Your task to perform on an android device: turn off notifications settings in the gmail app Image 0: 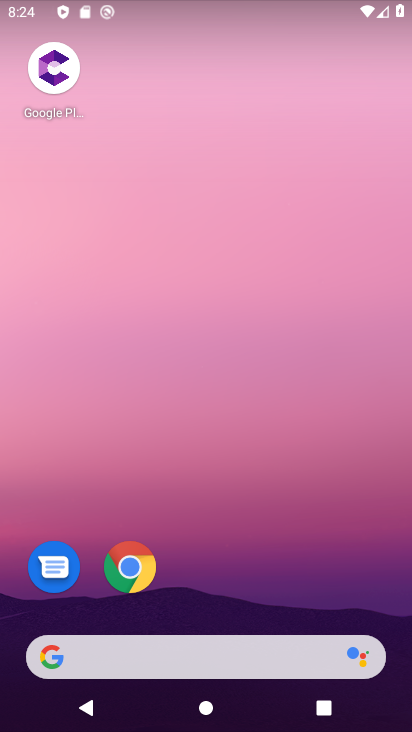
Step 0: drag from (217, 397) to (146, 37)
Your task to perform on an android device: turn off notifications settings in the gmail app Image 1: 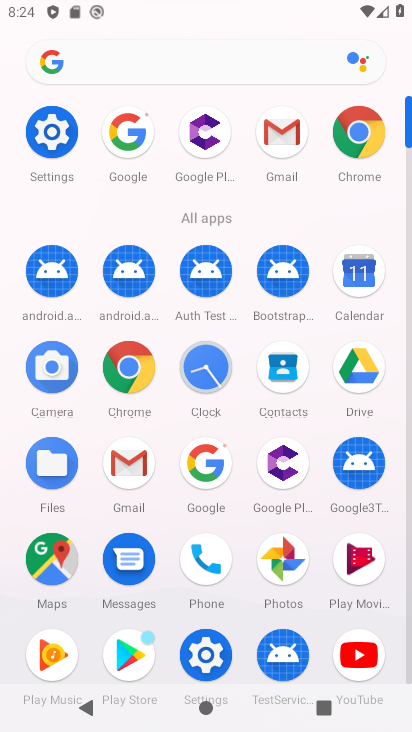
Step 1: click (291, 132)
Your task to perform on an android device: turn off notifications settings in the gmail app Image 2: 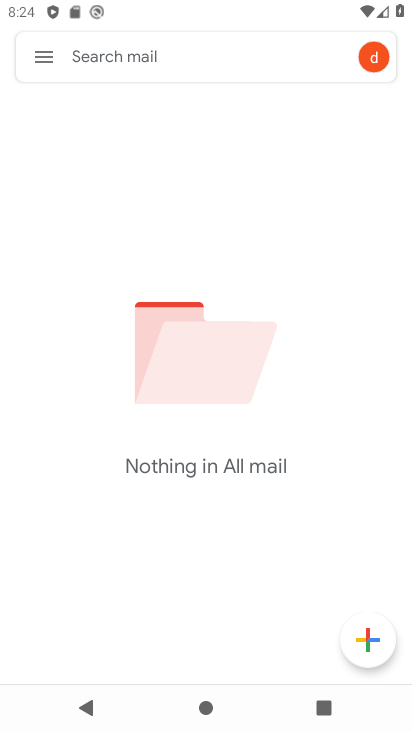
Step 2: click (47, 58)
Your task to perform on an android device: turn off notifications settings in the gmail app Image 3: 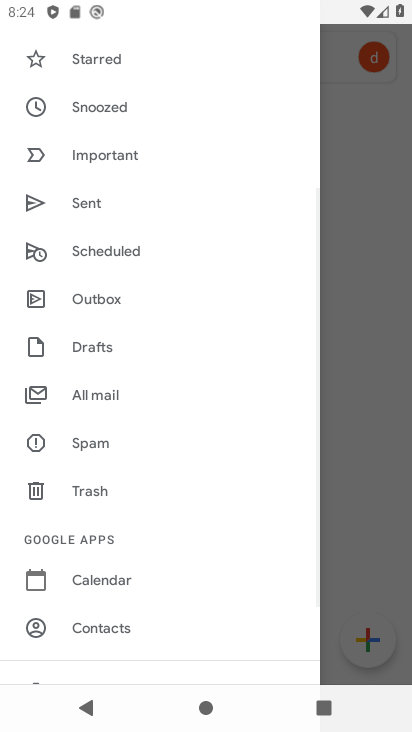
Step 3: drag from (181, 607) to (158, 201)
Your task to perform on an android device: turn off notifications settings in the gmail app Image 4: 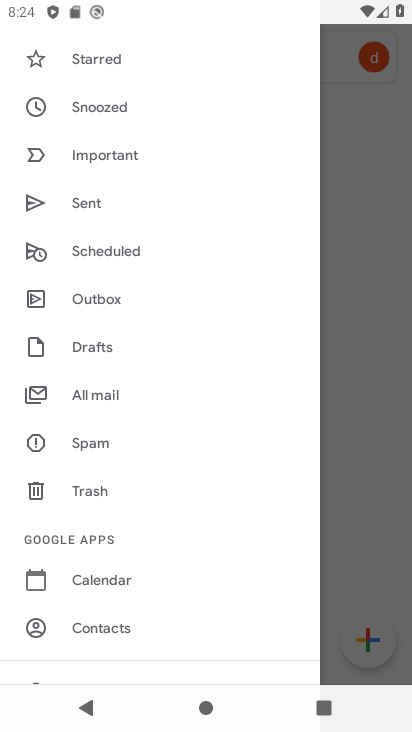
Step 4: drag from (169, 530) to (155, 223)
Your task to perform on an android device: turn off notifications settings in the gmail app Image 5: 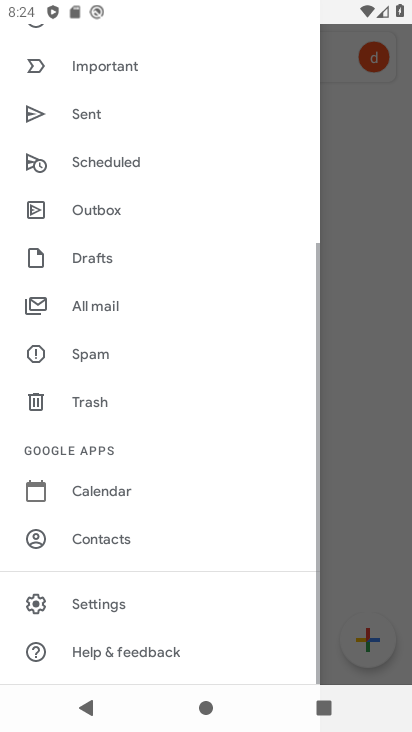
Step 5: click (122, 600)
Your task to perform on an android device: turn off notifications settings in the gmail app Image 6: 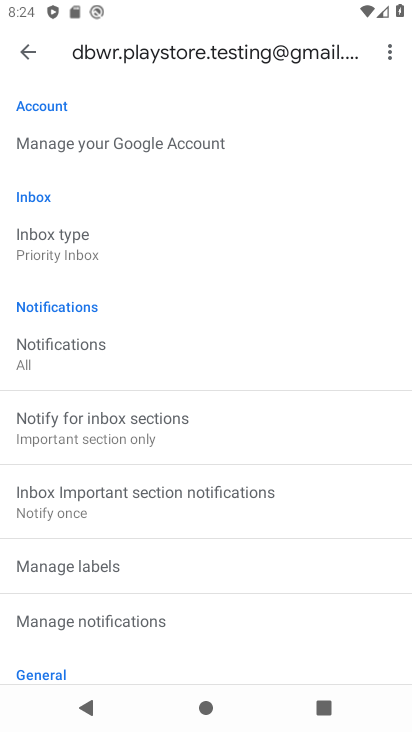
Step 6: click (111, 361)
Your task to perform on an android device: turn off notifications settings in the gmail app Image 7: 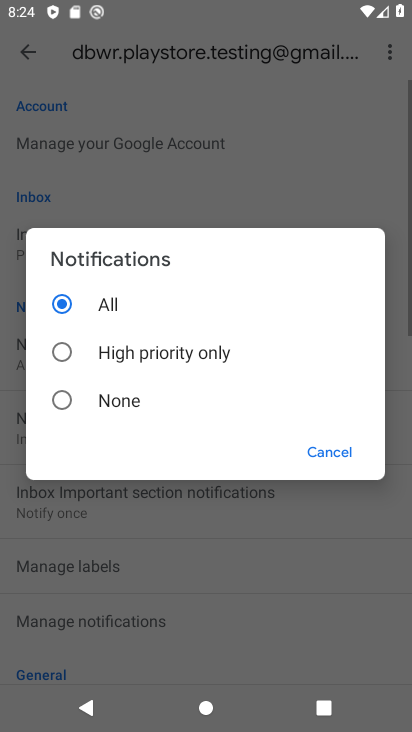
Step 7: click (111, 389)
Your task to perform on an android device: turn off notifications settings in the gmail app Image 8: 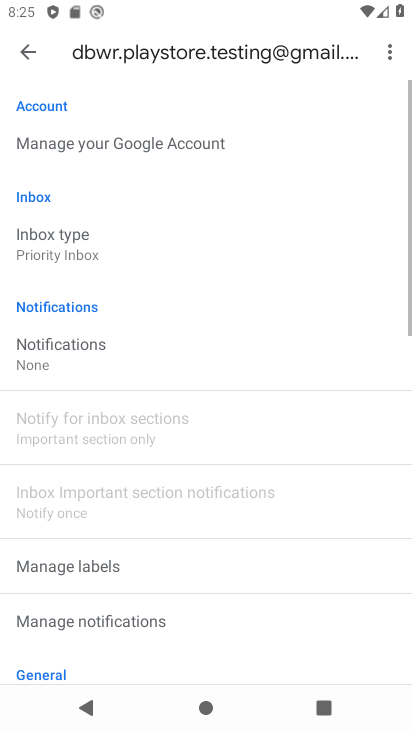
Step 8: task complete